Your task to perform on an android device: turn on priority inbox in the gmail app Image 0: 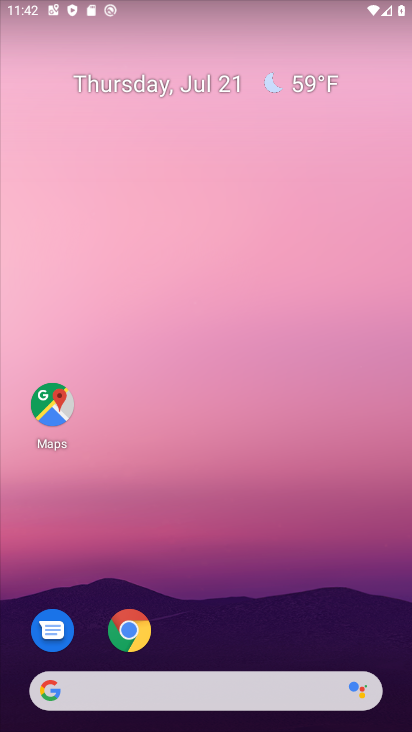
Step 0: drag from (205, 685) to (205, 395)
Your task to perform on an android device: turn on priority inbox in the gmail app Image 1: 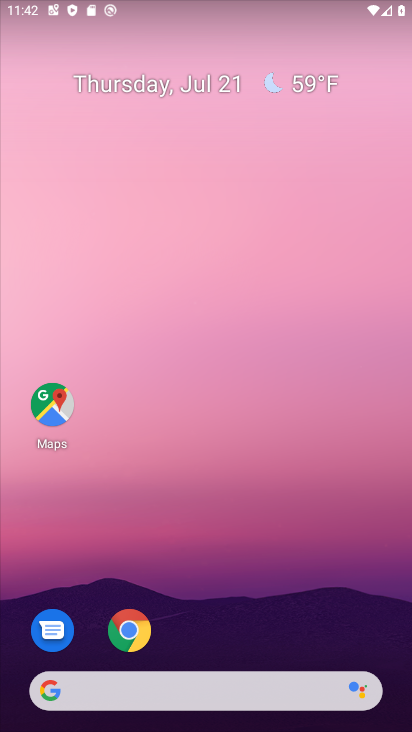
Step 1: drag from (225, 673) to (275, 256)
Your task to perform on an android device: turn on priority inbox in the gmail app Image 2: 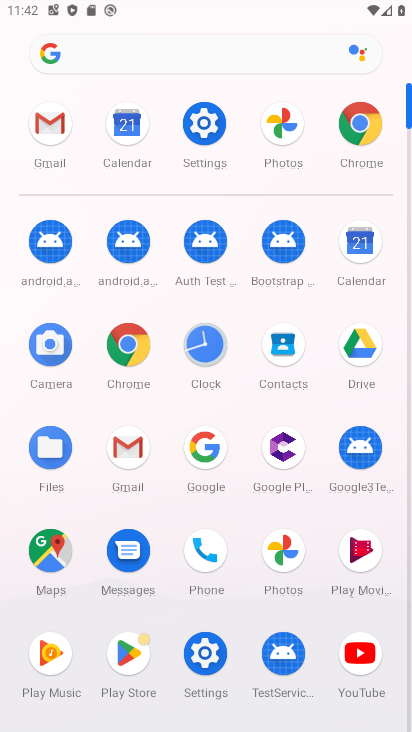
Step 2: click (129, 448)
Your task to perform on an android device: turn on priority inbox in the gmail app Image 3: 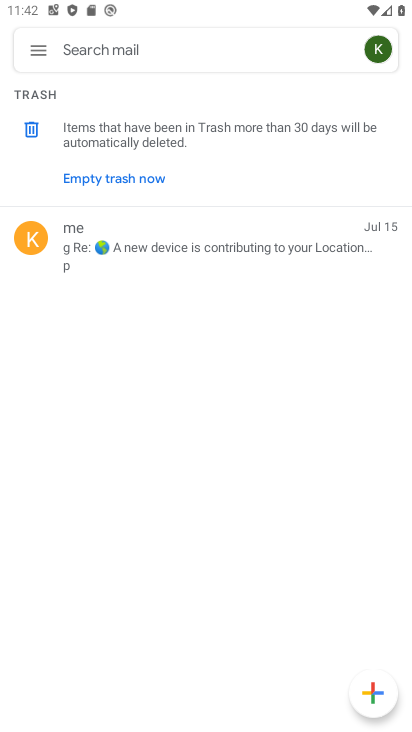
Step 3: click (38, 52)
Your task to perform on an android device: turn on priority inbox in the gmail app Image 4: 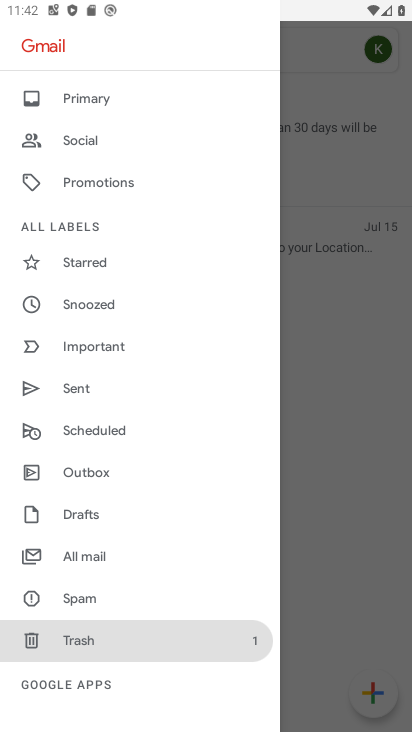
Step 4: drag from (99, 603) to (123, 255)
Your task to perform on an android device: turn on priority inbox in the gmail app Image 5: 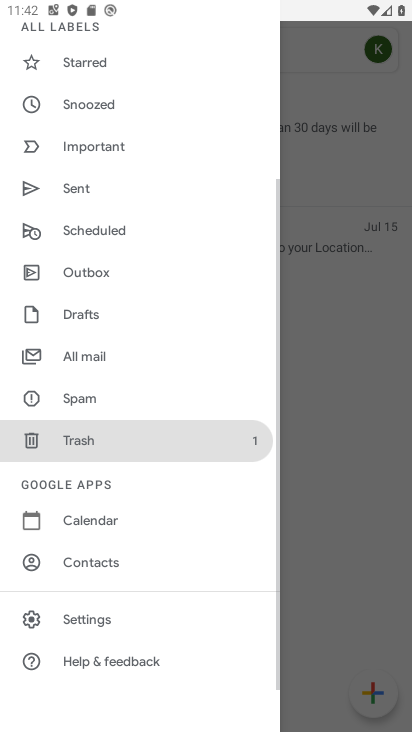
Step 5: click (78, 616)
Your task to perform on an android device: turn on priority inbox in the gmail app Image 6: 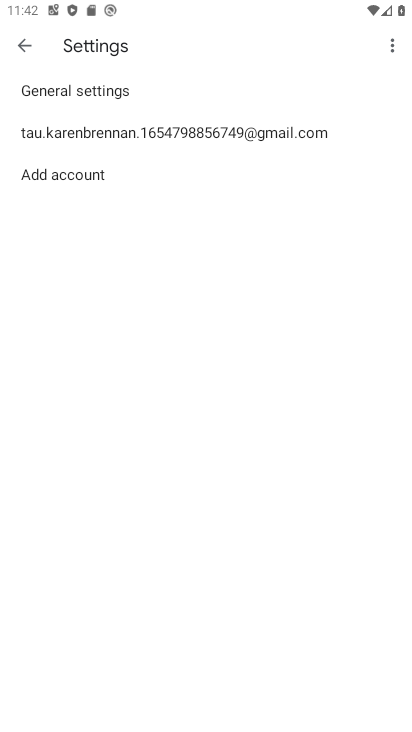
Step 6: click (47, 132)
Your task to perform on an android device: turn on priority inbox in the gmail app Image 7: 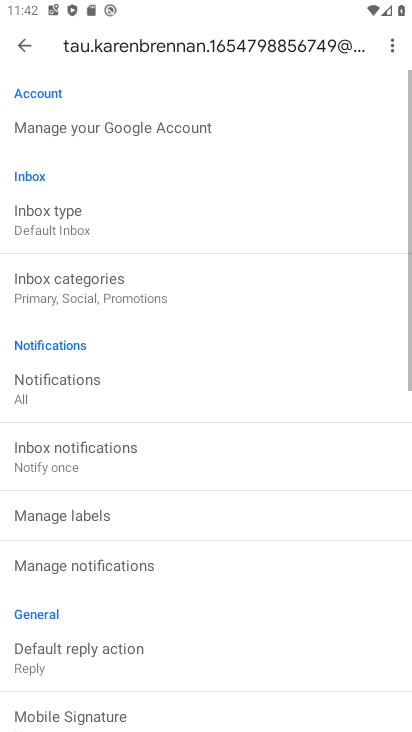
Step 7: click (42, 220)
Your task to perform on an android device: turn on priority inbox in the gmail app Image 8: 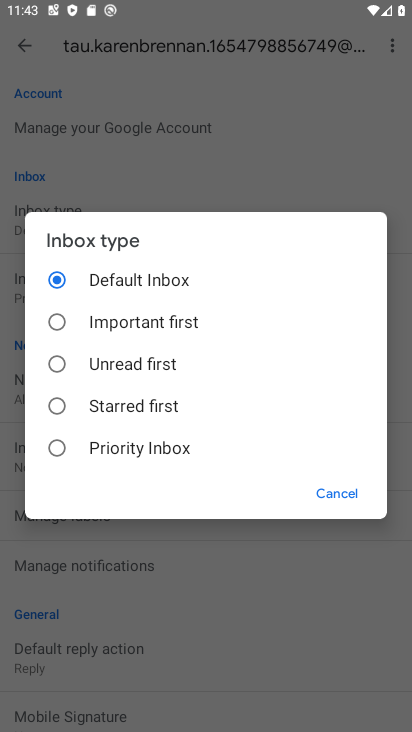
Step 8: click (118, 443)
Your task to perform on an android device: turn on priority inbox in the gmail app Image 9: 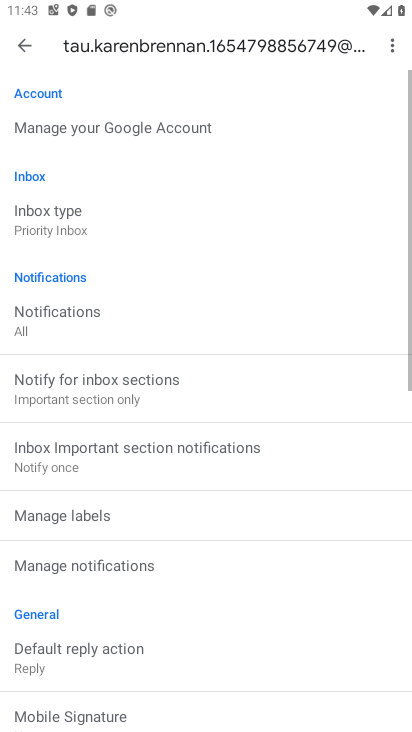
Step 9: task complete